Your task to perform on an android device: turn pop-ups on in chrome Image 0: 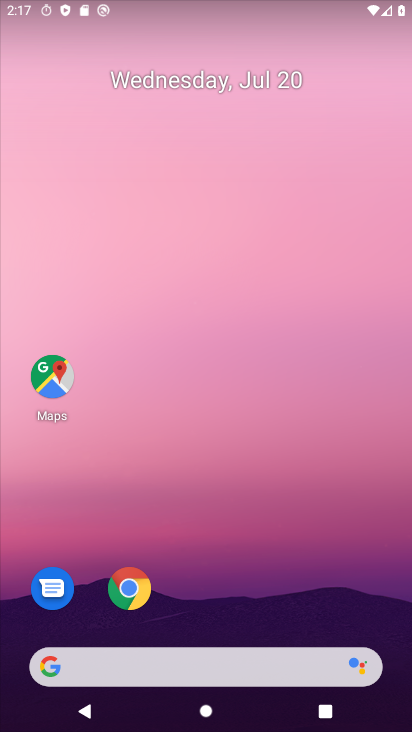
Step 0: drag from (202, 588) to (274, 300)
Your task to perform on an android device: turn pop-ups on in chrome Image 1: 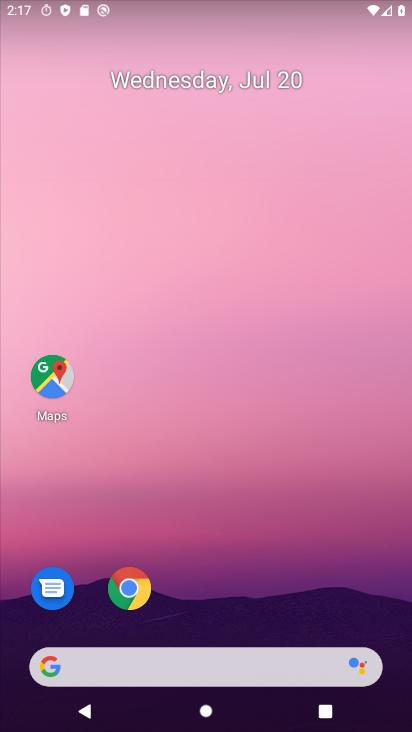
Step 1: click (133, 584)
Your task to perform on an android device: turn pop-ups on in chrome Image 2: 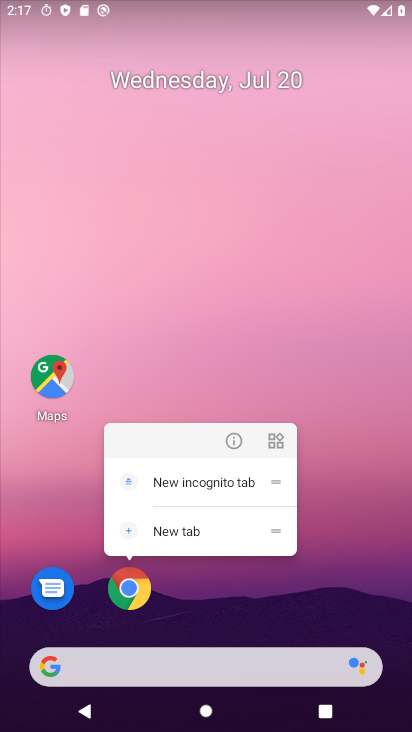
Step 2: click (233, 441)
Your task to perform on an android device: turn pop-ups on in chrome Image 3: 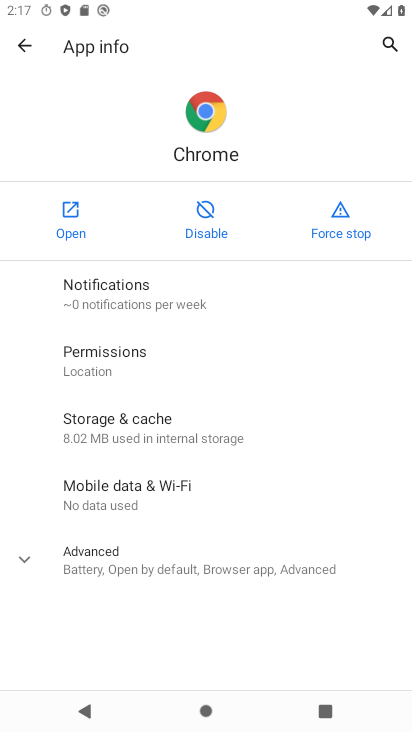
Step 3: click (77, 225)
Your task to perform on an android device: turn pop-ups on in chrome Image 4: 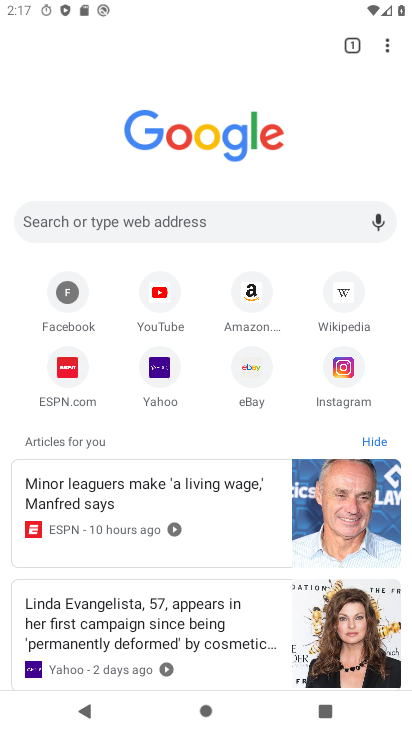
Step 4: drag from (385, 37) to (224, 382)
Your task to perform on an android device: turn pop-ups on in chrome Image 5: 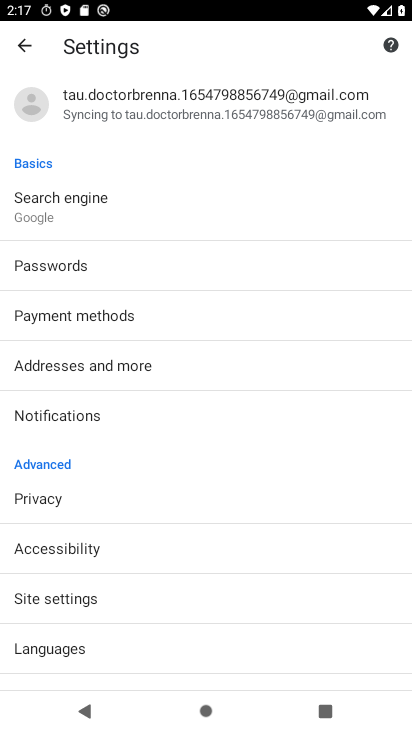
Step 5: click (114, 610)
Your task to perform on an android device: turn pop-ups on in chrome Image 6: 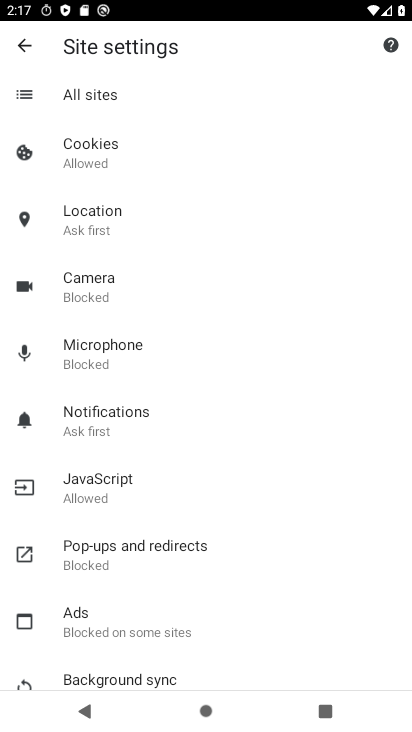
Step 6: click (94, 551)
Your task to perform on an android device: turn pop-ups on in chrome Image 7: 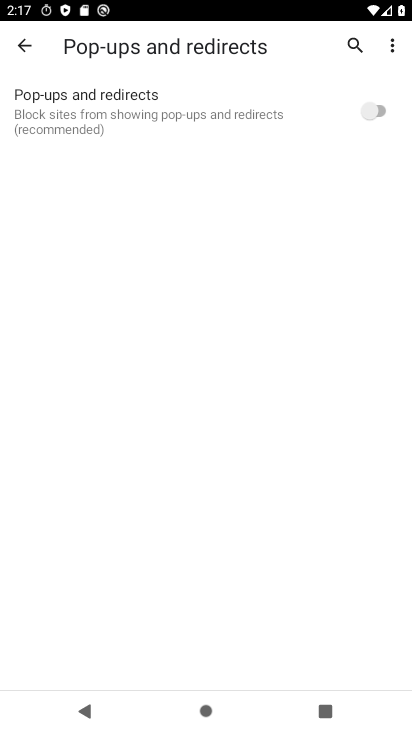
Step 7: click (311, 98)
Your task to perform on an android device: turn pop-ups on in chrome Image 8: 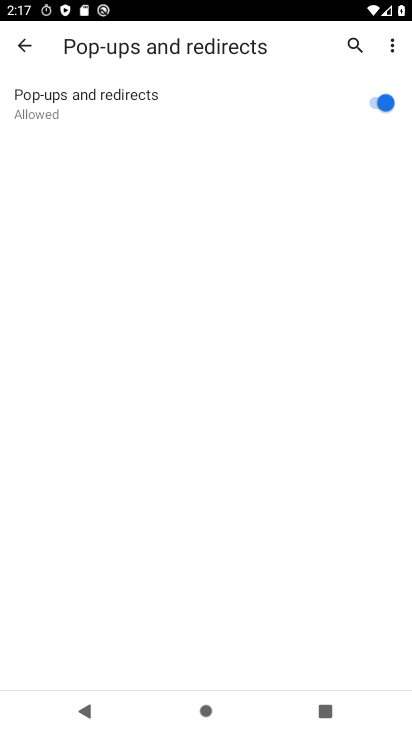
Step 8: task complete